Your task to perform on an android device: change notifications settings Image 0: 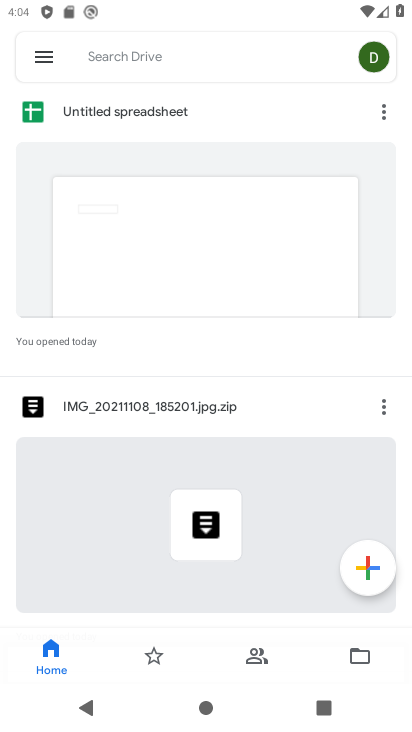
Step 0: press home button
Your task to perform on an android device: change notifications settings Image 1: 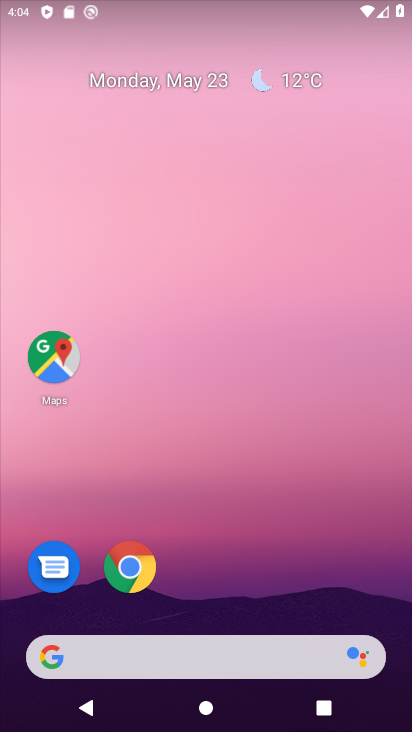
Step 1: drag from (188, 615) to (181, 220)
Your task to perform on an android device: change notifications settings Image 2: 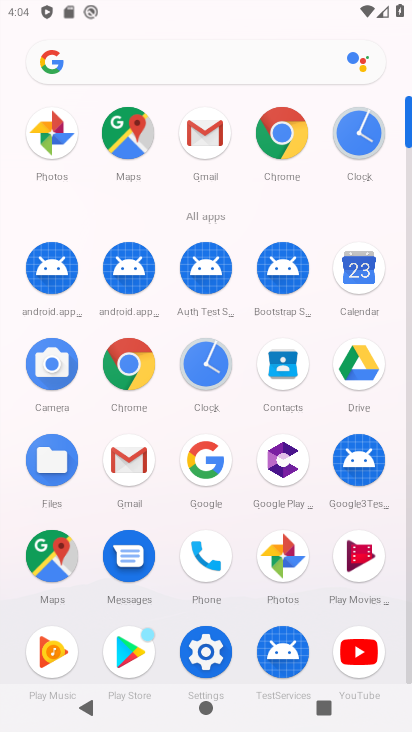
Step 2: click (207, 652)
Your task to perform on an android device: change notifications settings Image 3: 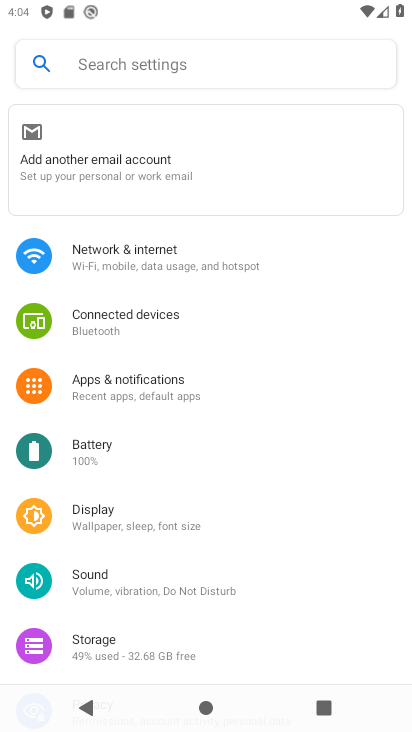
Step 3: click (174, 379)
Your task to perform on an android device: change notifications settings Image 4: 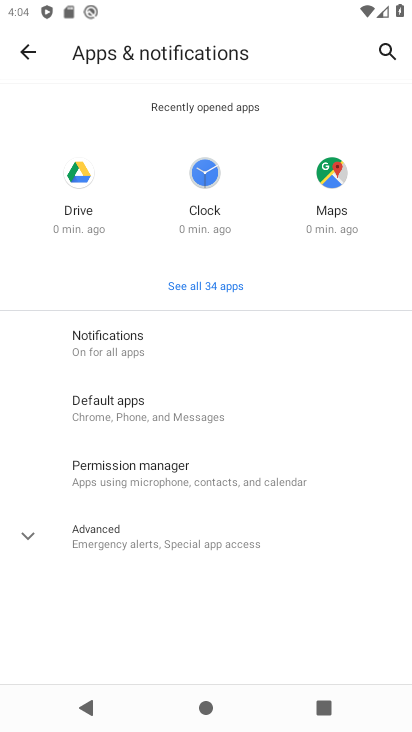
Step 4: click (115, 338)
Your task to perform on an android device: change notifications settings Image 5: 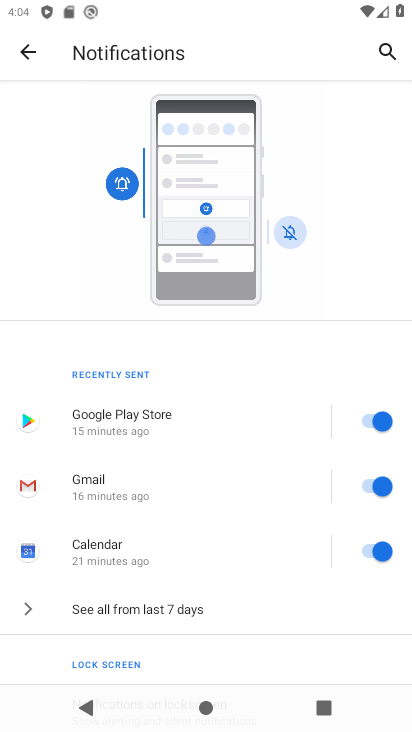
Step 5: task complete